Your task to perform on an android device: What's the weather going to be tomorrow? Image 0: 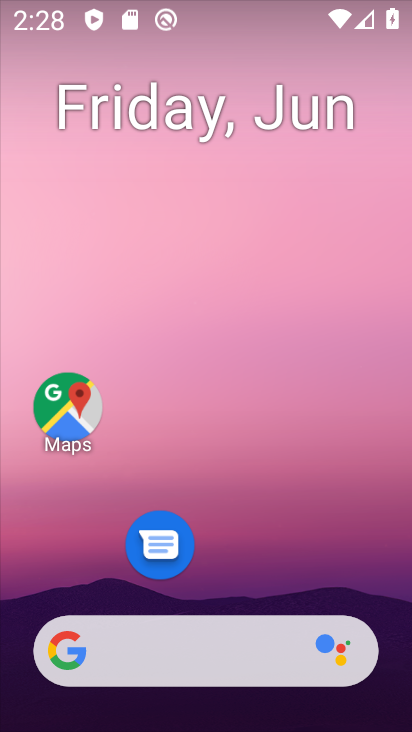
Step 0: click (199, 650)
Your task to perform on an android device: What's the weather going to be tomorrow? Image 1: 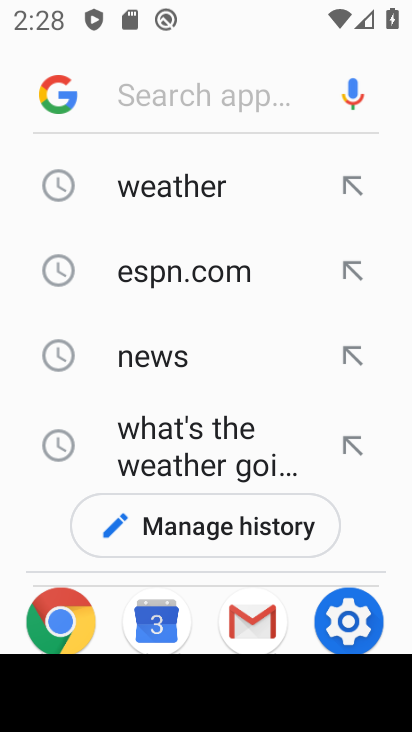
Step 1: click (175, 197)
Your task to perform on an android device: What's the weather going to be tomorrow? Image 2: 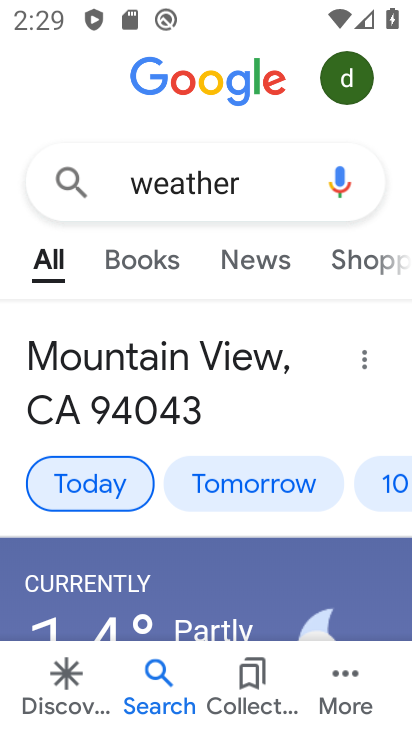
Step 2: click (275, 503)
Your task to perform on an android device: What's the weather going to be tomorrow? Image 3: 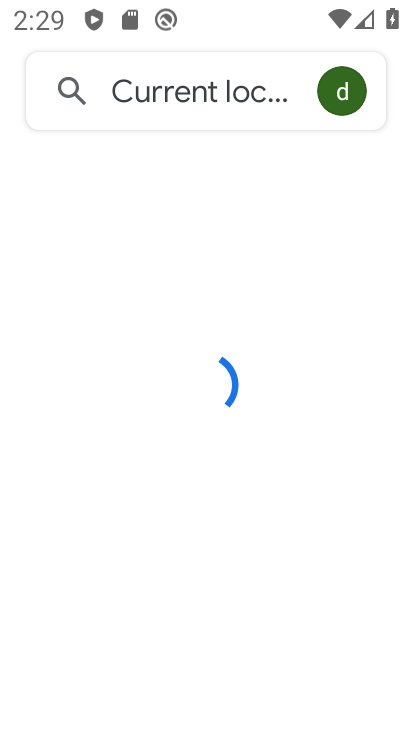
Step 3: click (258, 488)
Your task to perform on an android device: What's the weather going to be tomorrow? Image 4: 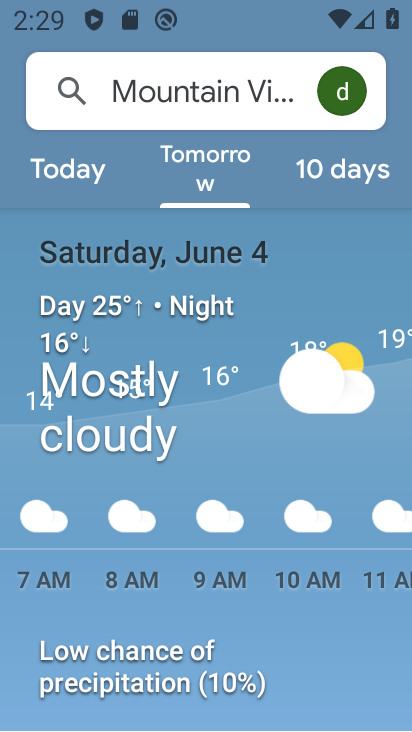
Step 4: task complete